Your task to perform on an android device: Open internet settings Image 0: 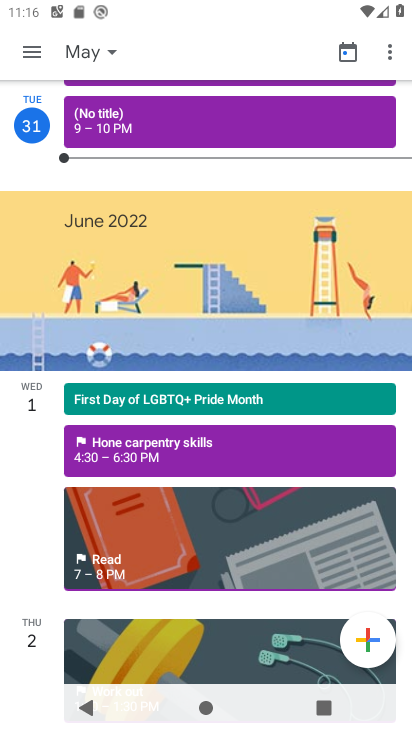
Step 0: drag from (283, 11) to (107, 716)
Your task to perform on an android device: Open internet settings Image 1: 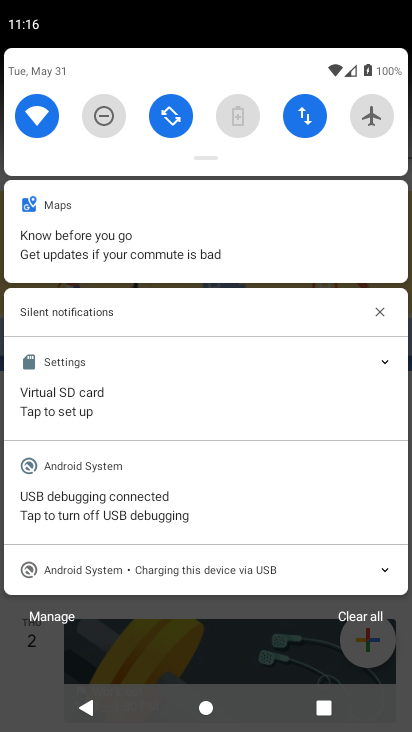
Step 1: click (301, 116)
Your task to perform on an android device: Open internet settings Image 2: 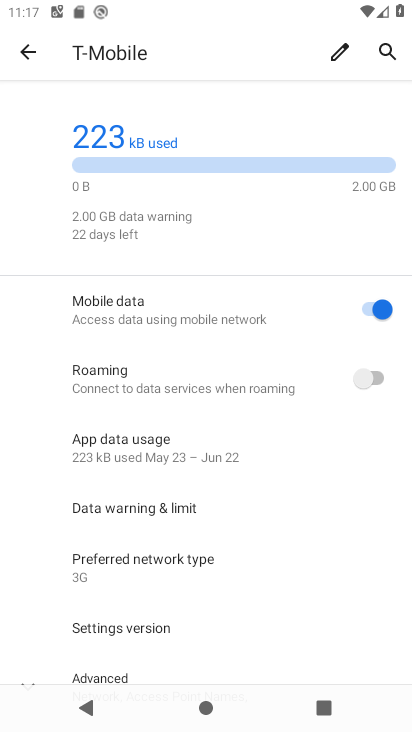
Step 2: task complete